Your task to perform on an android device: check the backup settings in the google photos Image 0: 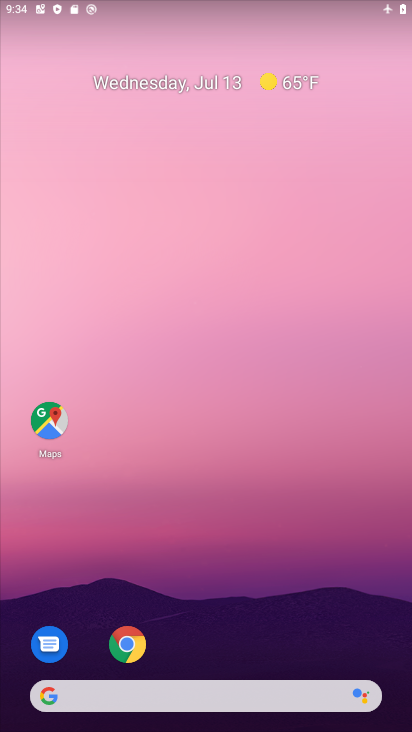
Step 0: drag from (251, 614) to (194, 60)
Your task to perform on an android device: check the backup settings in the google photos Image 1: 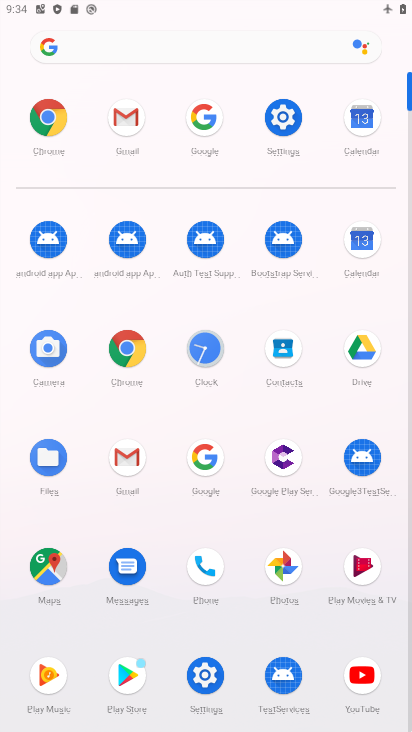
Step 1: click (285, 567)
Your task to perform on an android device: check the backup settings in the google photos Image 2: 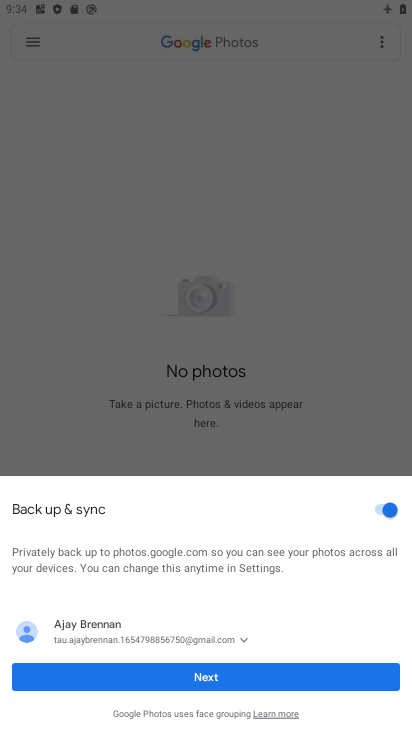
Step 2: click (179, 671)
Your task to perform on an android device: check the backup settings in the google photos Image 3: 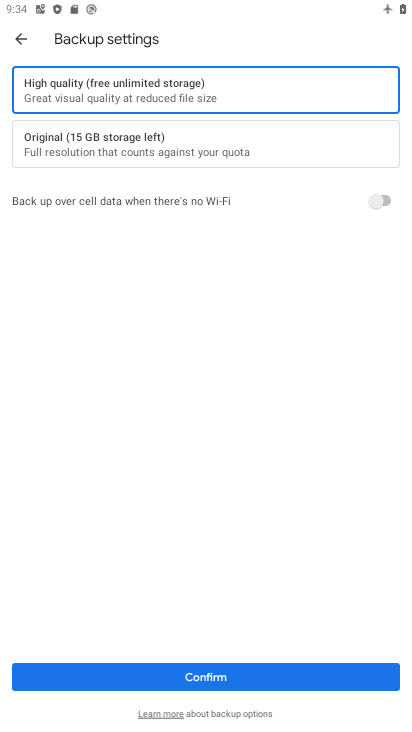
Step 3: task complete